Your task to perform on an android device: toggle location history Image 0: 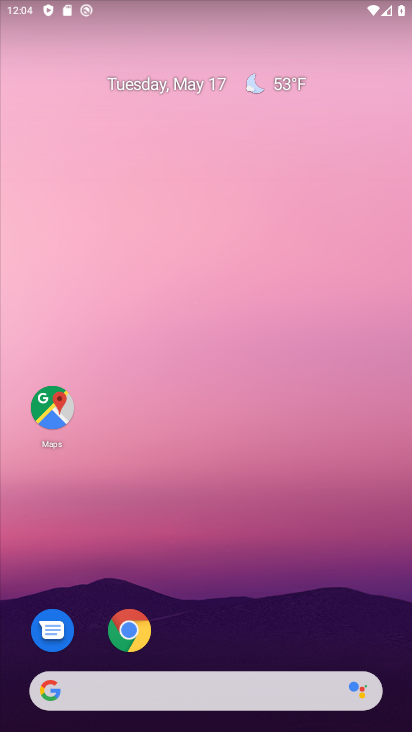
Step 0: drag from (191, 628) to (208, 480)
Your task to perform on an android device: toggle location history Image 1: 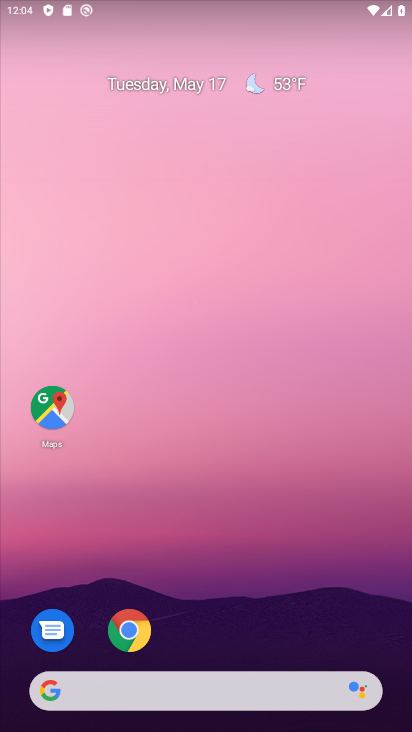
Step 1: drag from (325, 603) to (352, 4)
Your task to perform on an android device: toggle location history Image 2: 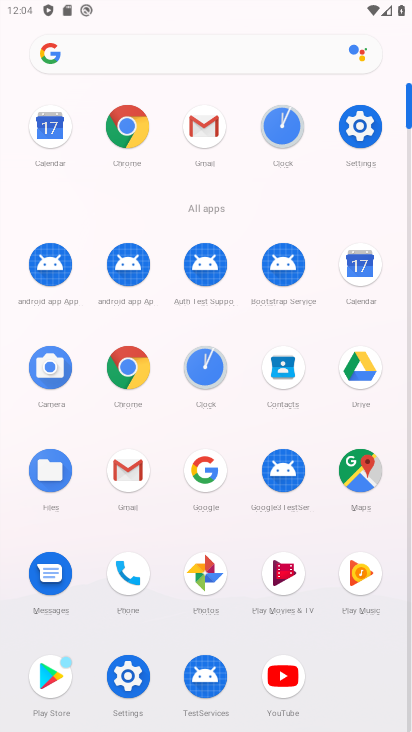
Step 2: click (360, 139)
Your task to perform on an android device: toggle location history Image 3: 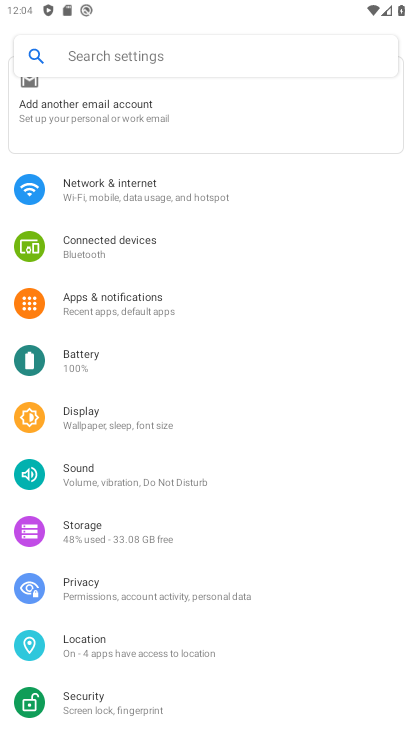
Step 3: drag from (203, 462) to (208, 395)
Your task to perform on an android device: toggle location history Image 4: 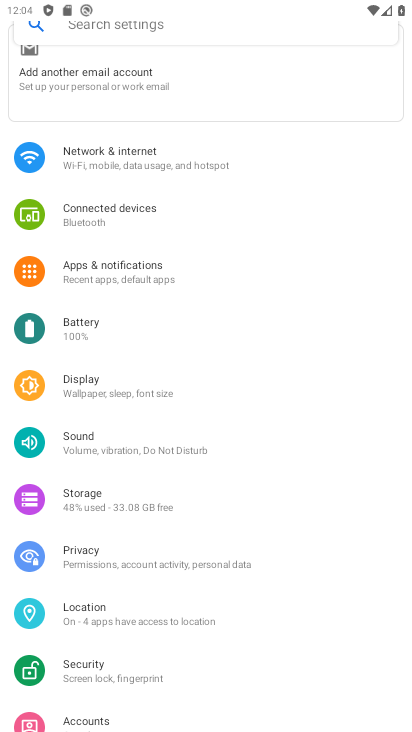
Step 4: drag from (185, 531) to (192, 381)
Your task to perform on an android device: toggle location history Image 5: 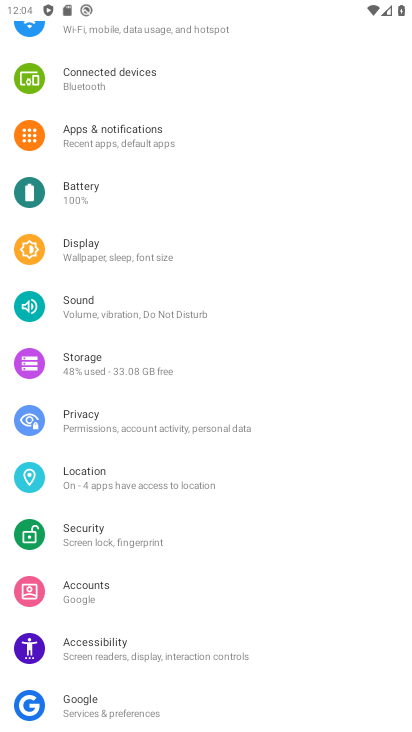
Step 5: click (140, 473)
Your task to perform on an android device: toggle location history Image 6: 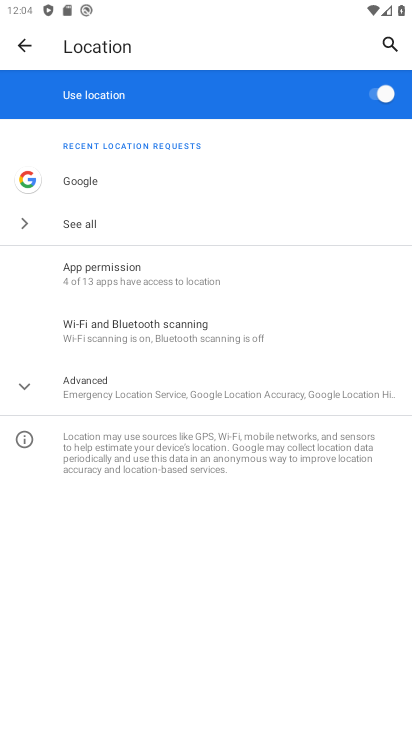
Step 6: click (370, 100)
Your task to perform on an android device: toggle location history Image 7: 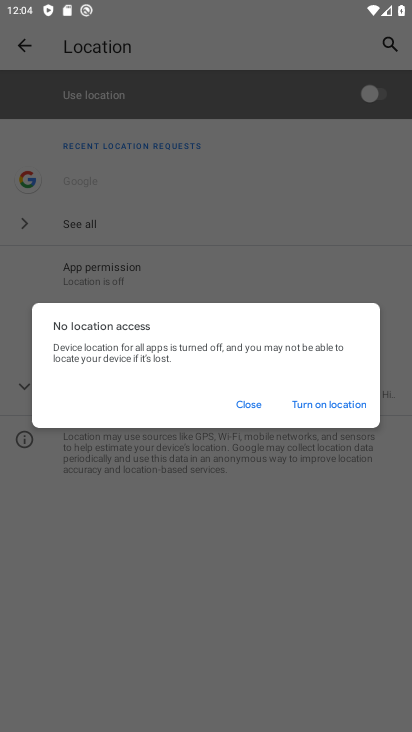
Step 7: click (249, 405)
Your task to perform on an android device: toggle location history Image 8: 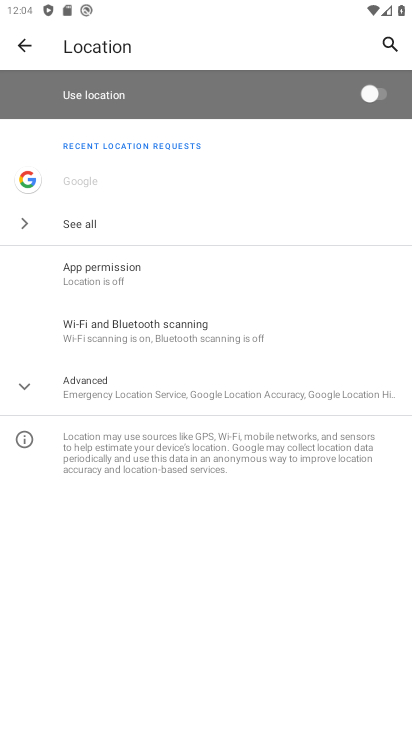
Step 8: click (188, 387)
Your task to perform on an android device: toggle location history Image 9: 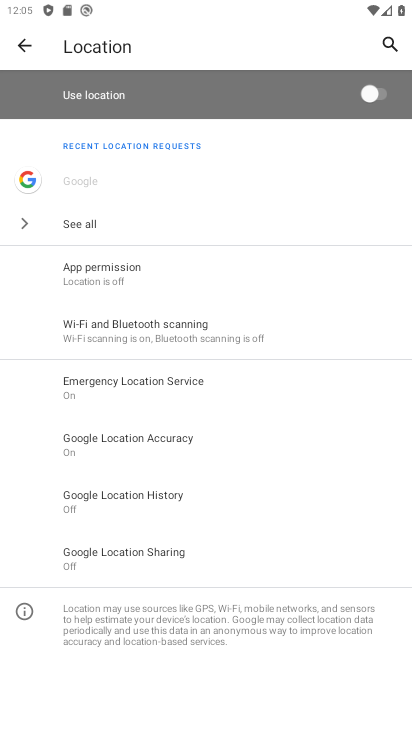
Step 9: click (184, 512)
Your task to perform on an android device: toggle location history Image 10: 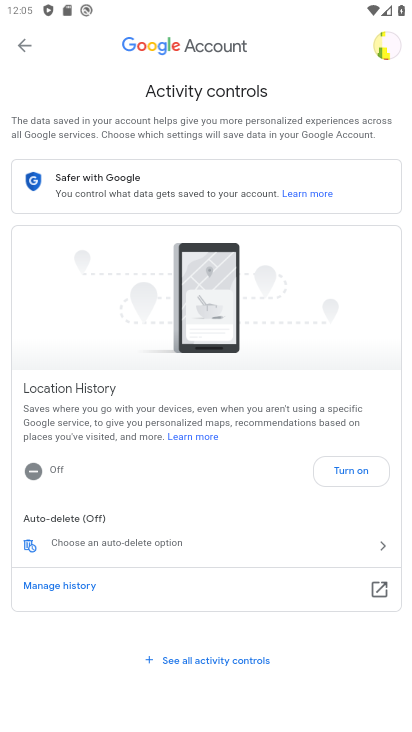
Step 10: click (349, 476)
Your task to perform on an android device: toggle location history Image 11: 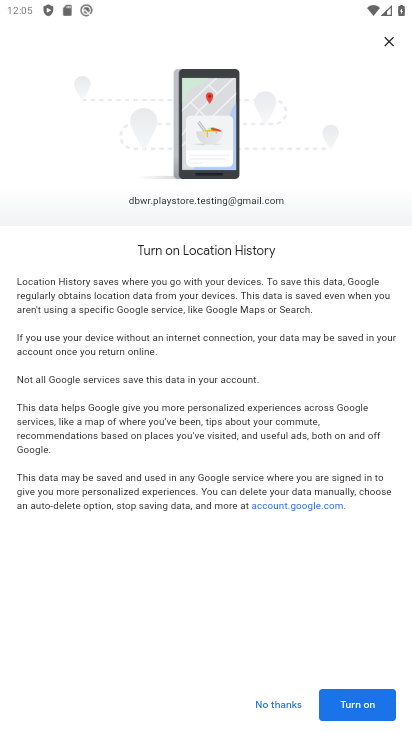
Step 11: click (347, 708)
Your task to perform on an android device: toggle location history Image 12: 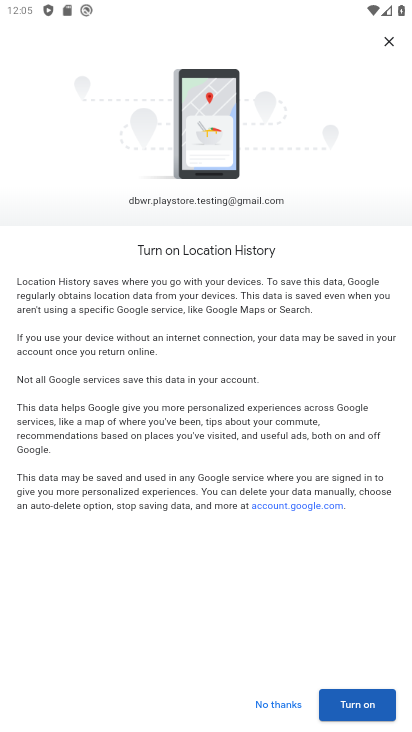
Step 12: click (363, 712)
Your task to perform on an android device: toggle location history Image 13: 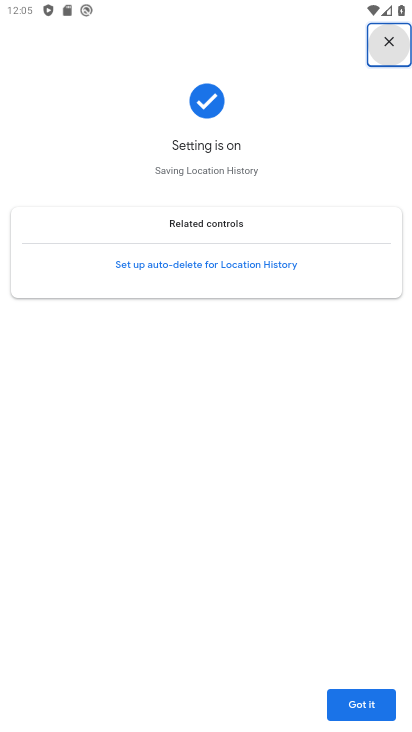
Step 13: click (392, 710)
Your task to perform on an android device: toggle location history Image 14: 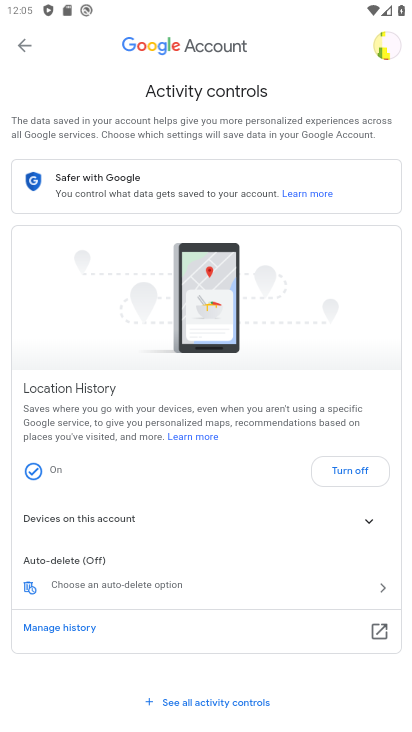
Step 14: task complete